Your task to perform on an android device: Open accessibility settings Image 0: 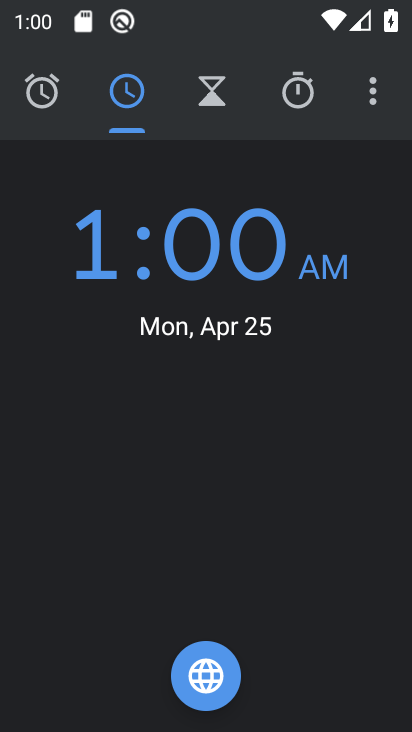
Step 0: press home button
Your task to perform on an android device: Open accessibility settings Image 1: 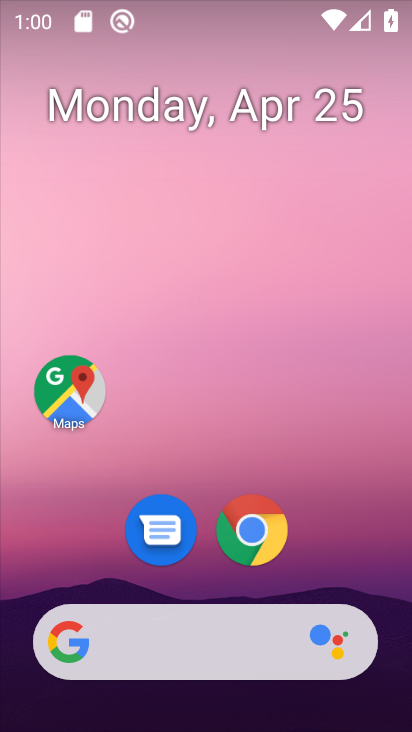
Step 1: drag from (339, 562) to (337, 89)
Your task to perform on an android device: Open accessibility settings Image 2: 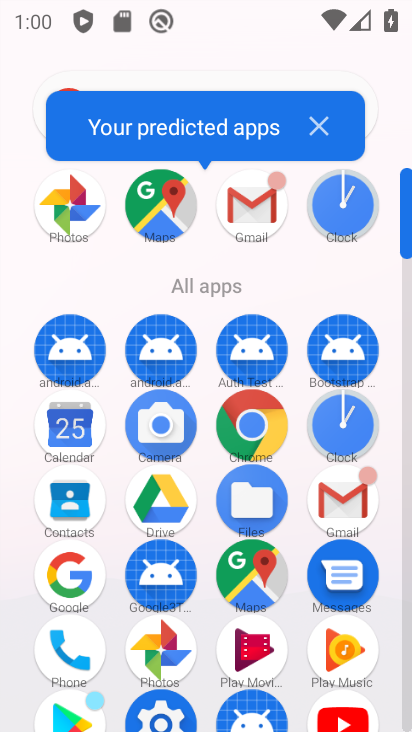
Step 2: drag from (296, 608) to (293, 344)
Your task to perform on an android device: Open accessibility settings Image 3: 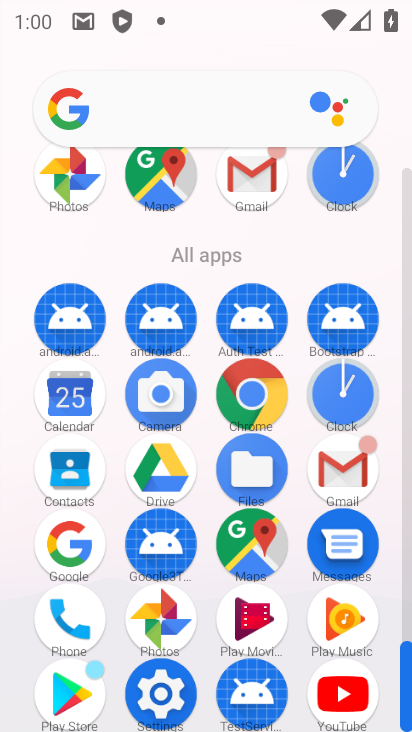
Step 3: click (163, 720)
Your task to perform on an android device: Open accessibility settings Image 4: 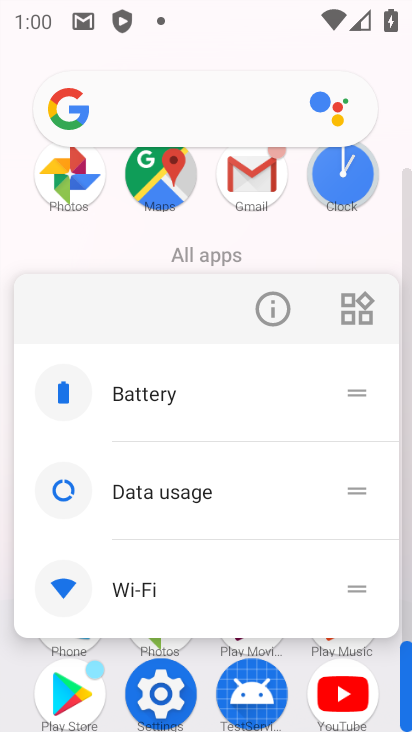
Step 4: click (173, 695)
Your task to perform on an android device: Open accessibility settings Image 5: 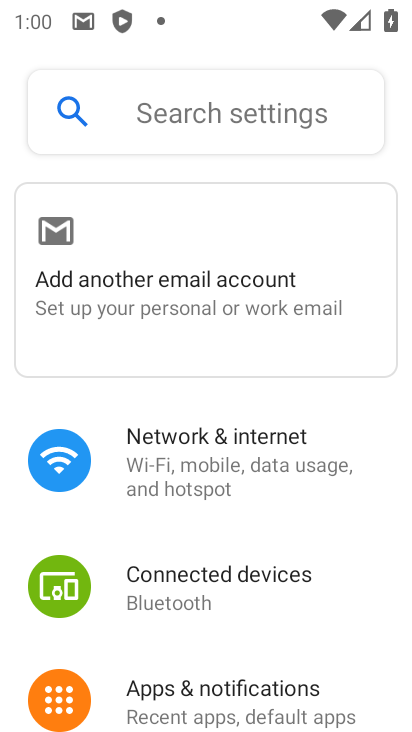
Step 5: drag from (327, 628) to (311, 230)
Your task to perform on an android device: Open accessibility settings Image 6: 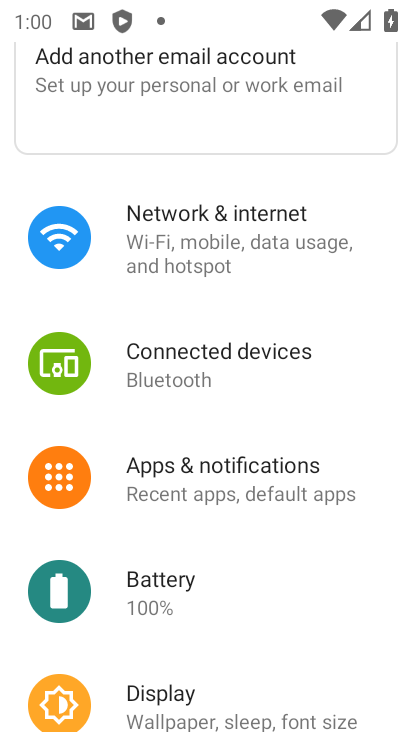
Step 6: drag from (291, 500) to (324, 270)
Your task to perform on an android device: Open accessibility settings Image 7: 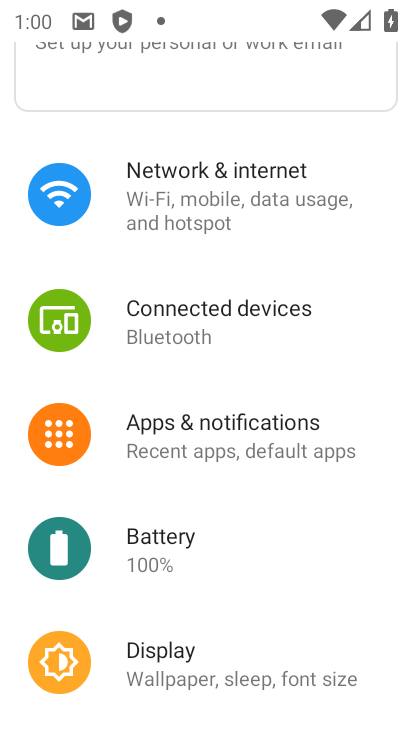
Step 7: drag from (280, 493) to (381, 208)
Your task to perform on an android device: Open accessibility settings Image 8: 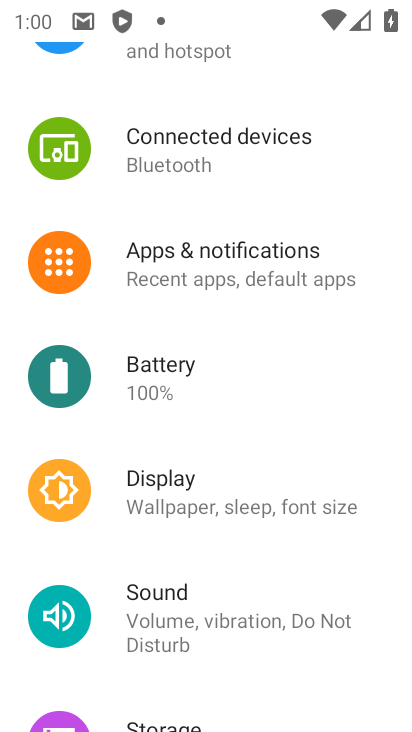
Step 8: drag from (364, 686) to (359, 205)
Your task to perform on an android device: Open accessibility settings Image 9: 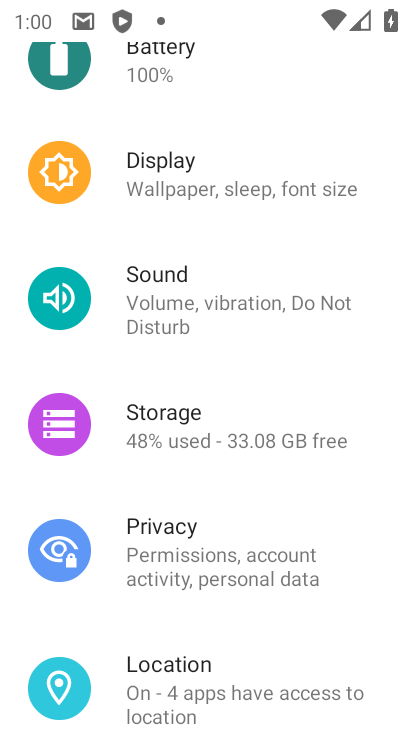
Step 9: drag from (335, 482) to (337, 239)
Your task to perform on an android device: Open accessibility settings Image 10: 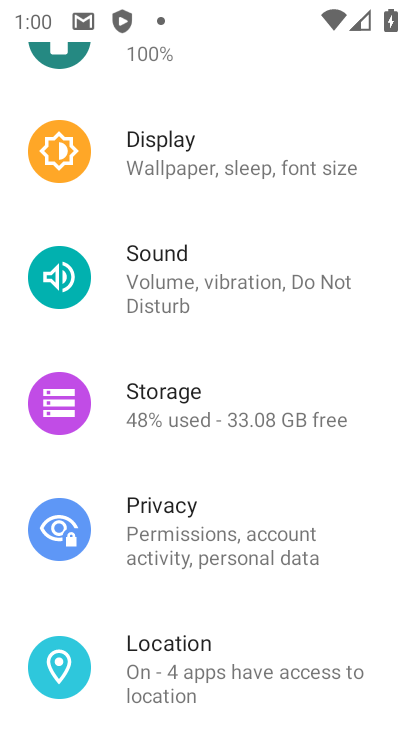
Step 10: drag from (309, 610) to (372, 323)
Your task to perform on an android device: Open accessibility settings Image 11: 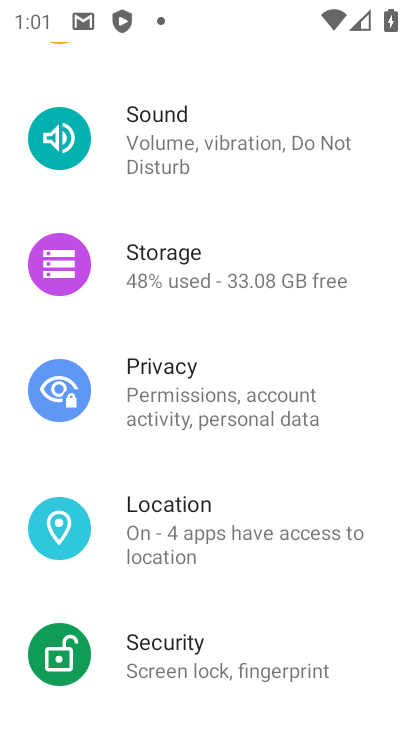
Step 11: drag from (335, 554) to (357, 314)
Your task to perform on an android device: Open accessibility settings Image 12: 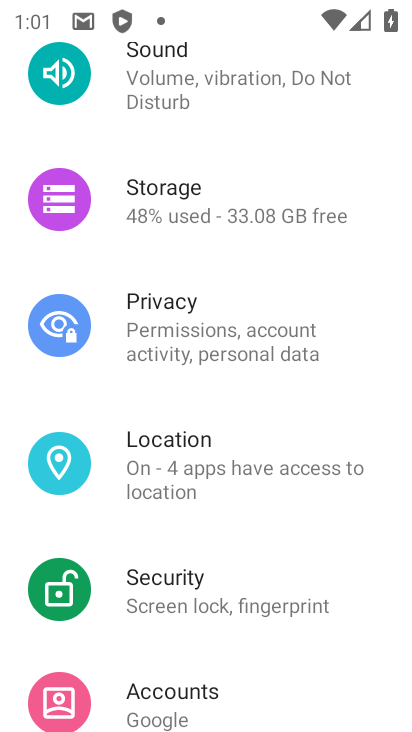
Step 12: drag from (333, 673) to (409, 238)
Your task to perform on an android device: Open accessibility settings Image 13: 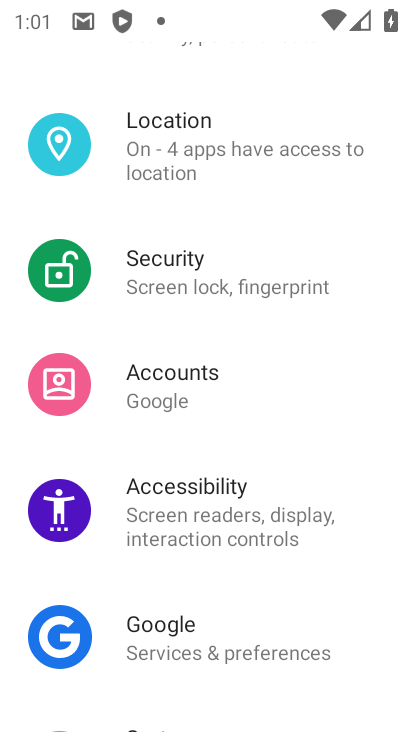
Step 13: click (242, 509)
Your task to perform on an android device: Open accessibility settings Image 14: 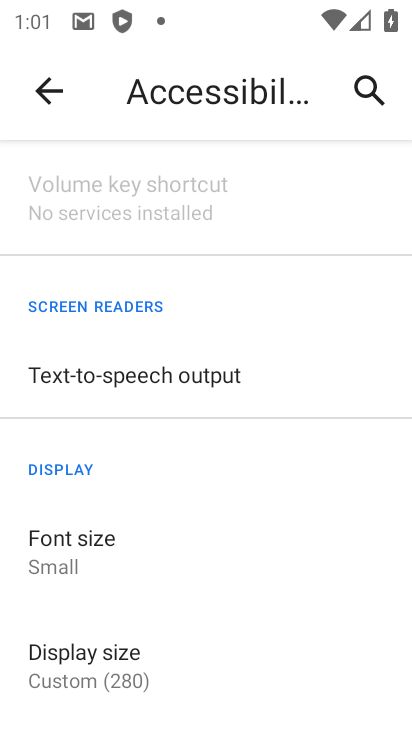
Step 14: task complete